Your task to perform on an android device: Search for seafood restaurants on Google Maps Image 0: 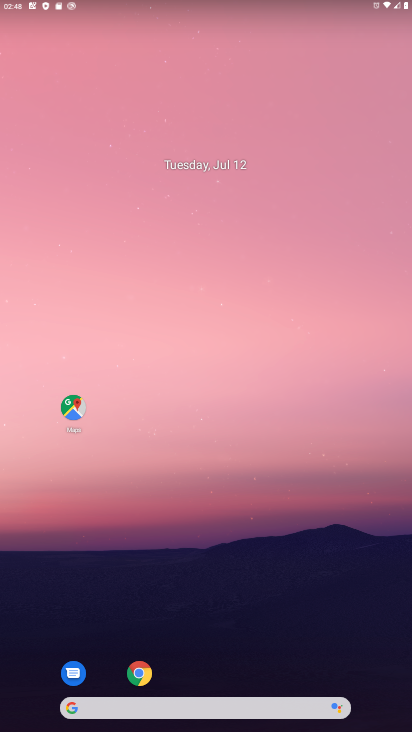
Step 0: click (72, 418)
Your task to perform on an android device: Search for seafood restaurants on Google Maps Image 1: 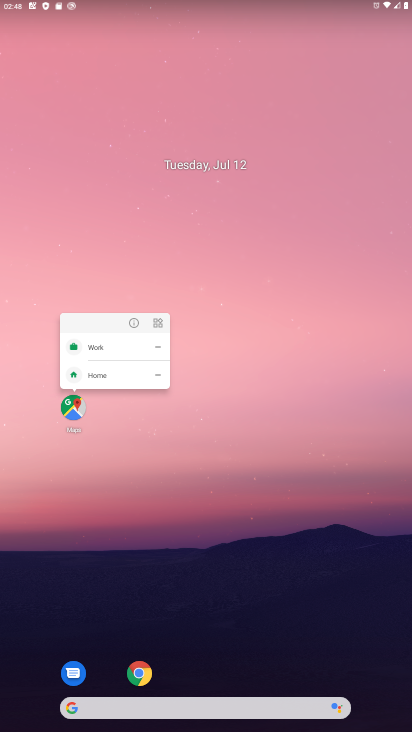
Step 1: click (77, 405)
Your task to perform on an android device: Search for seafood restaurants on Google Maps Image 2: 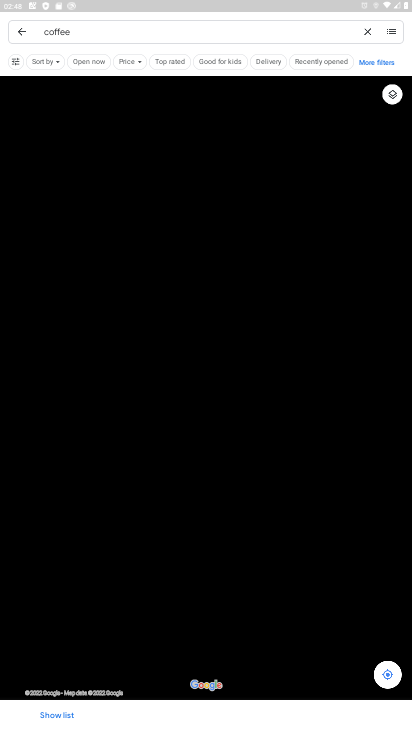
Step 2: click (164, 30)
Your task to perform on an android device: Search for seafood restaurants on Google Maps Image 3: 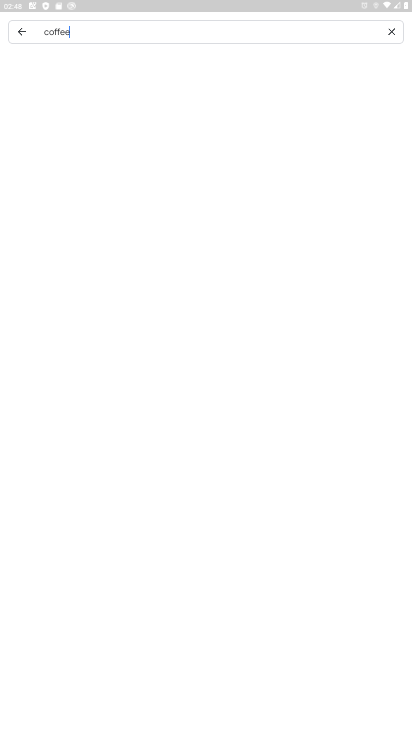
Step 3: click (397, 34)
Your task to perform on an android device: Search for seafood restaurants on Google Maps Image 4: 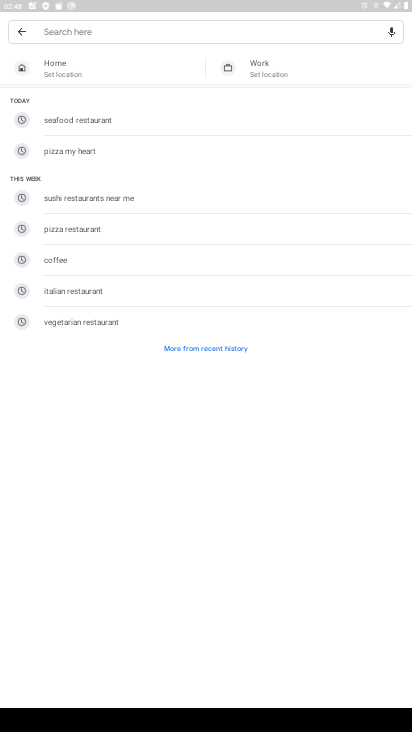
Step 4: click (189, 120)
Your task to perform on an android device: Search for seafood restaurants on Google Maps Image 5: 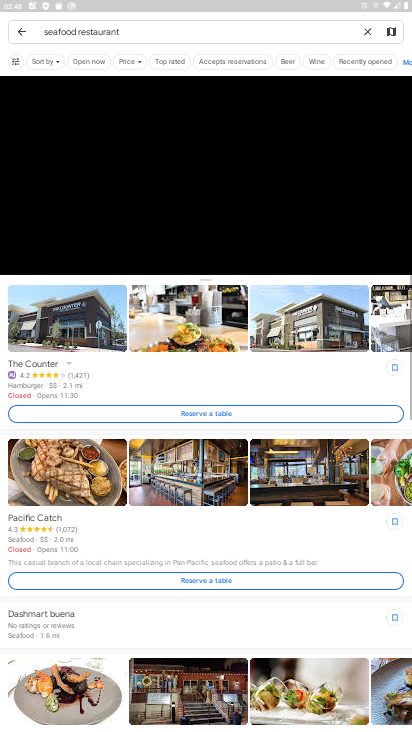
Step 5: task complete